Your task to perform on an android device: check data usage Image 0: 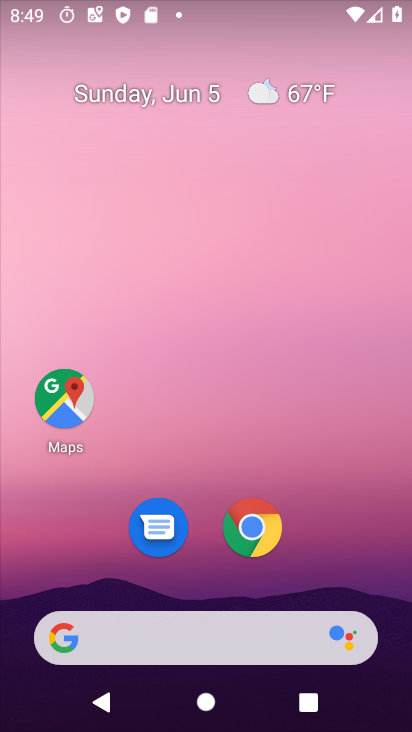
Step 0: drag from (239, 728) to (233, 128)
Your task to perform on an android device: check data usage Image 1: 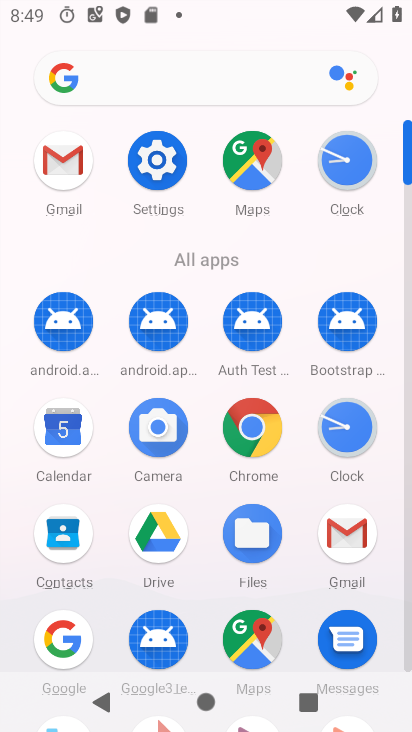
Step 1: click (157, 150)
Your task to perform on an android device: check data usage Image 2: 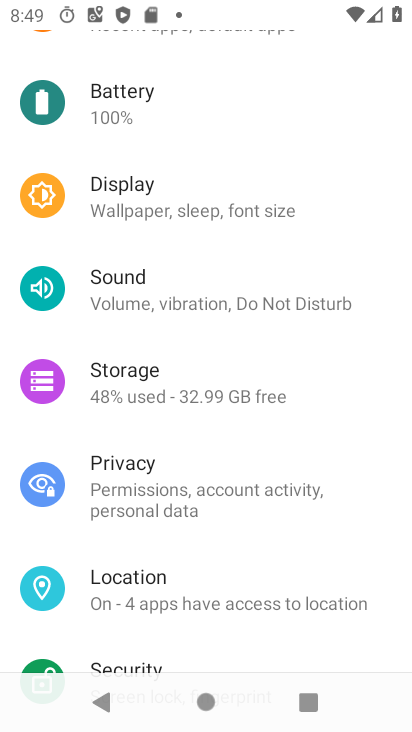
Step 2: drag from (231, 132) to (283, 554)
Your task to perform on an android device: check data usage Image 3: 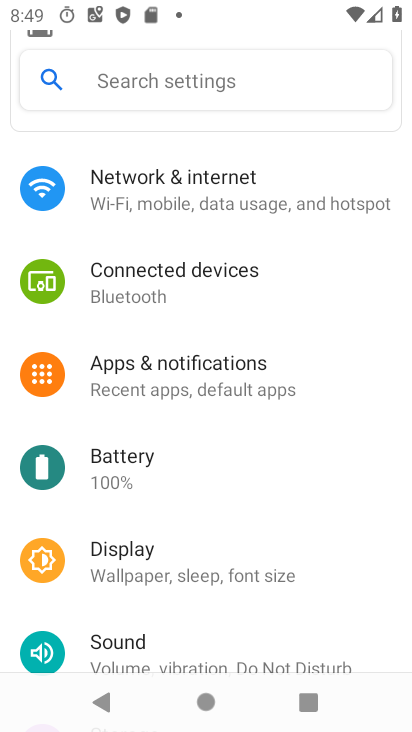
Step 3: drag from (282, 157) to (308, 554)
Your task to perform on an android device: check data usage Image 4: 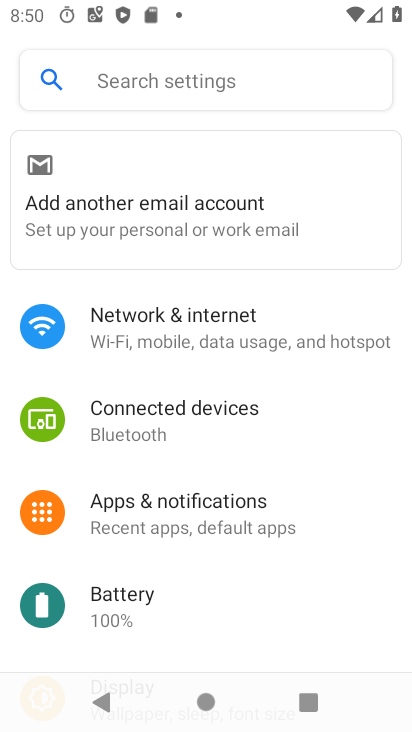
Step 4: click (155, 322)
Your task to perform on an android device: check data usage Image 5: 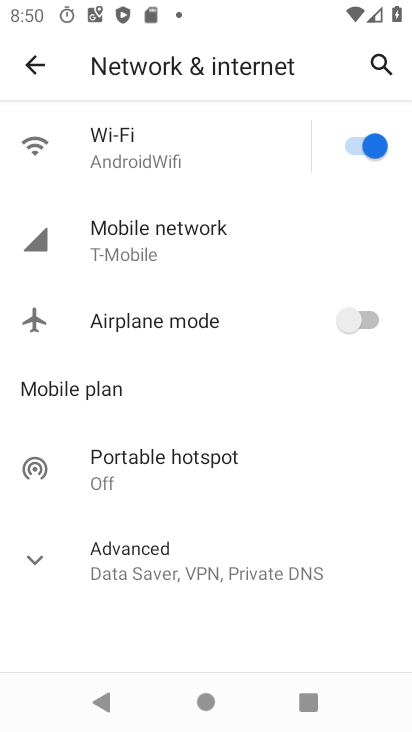
Step 5: click (147, 225)
Your task to perform on an android device: check data usage Image 6: 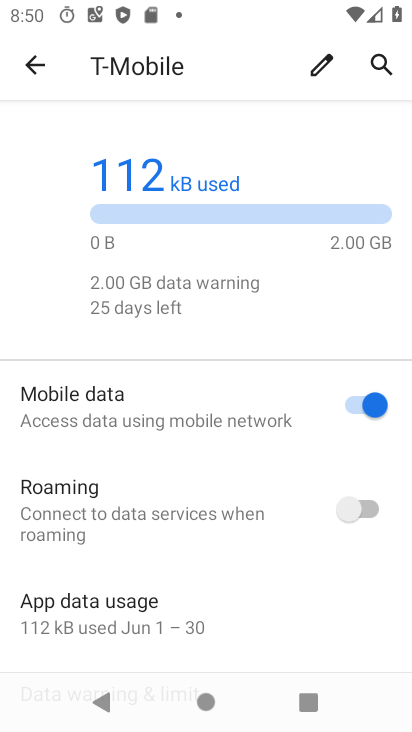
Step 6: drag from (179, 608) to (180, 344)
Your task to perform on an android device: check data usage Image 7: 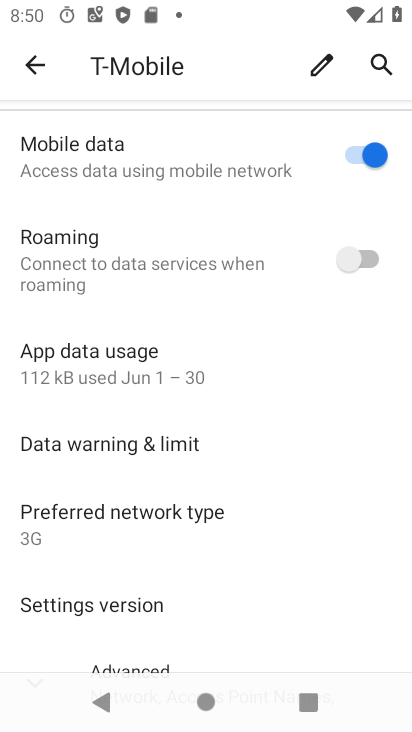
Step 7: click (90, 360)
Your task to perform on an android device: check data usage Image 8: 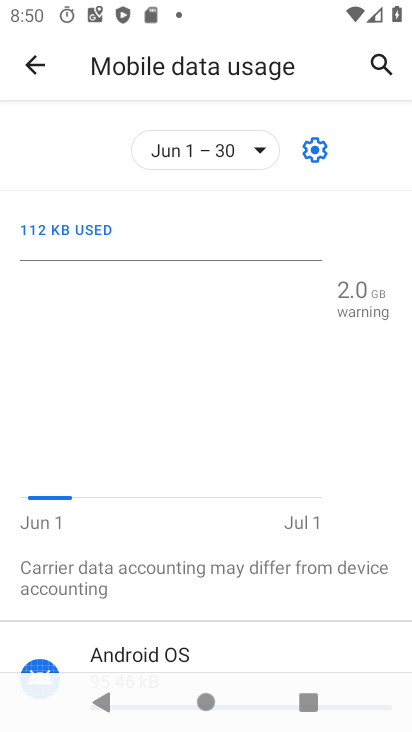
Step 8: task complete